Your task to perform on an android device: check google app version Image 0: 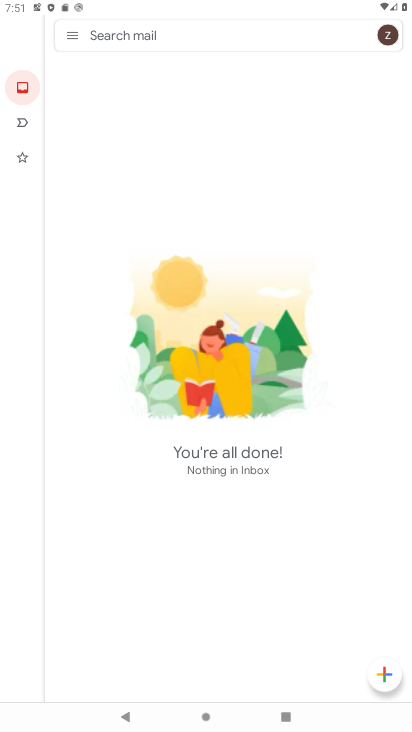
Step 0: press back button
Your task to perform on an android device: check google app version Image 1: 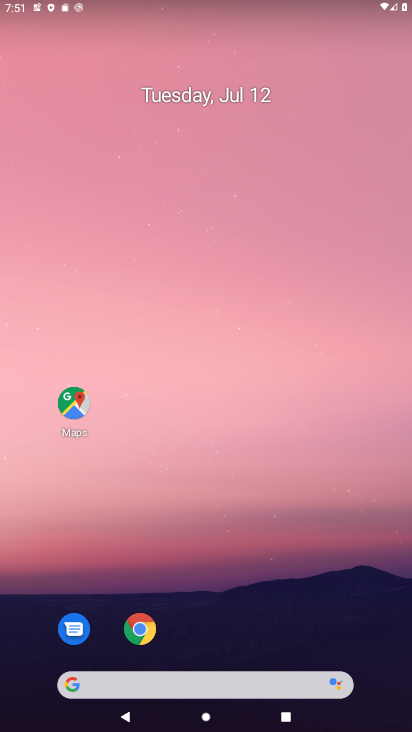
Step 1: drag from (250, 622) to (146, 75)
Your task to perform on an android device: check google app version Image 2: 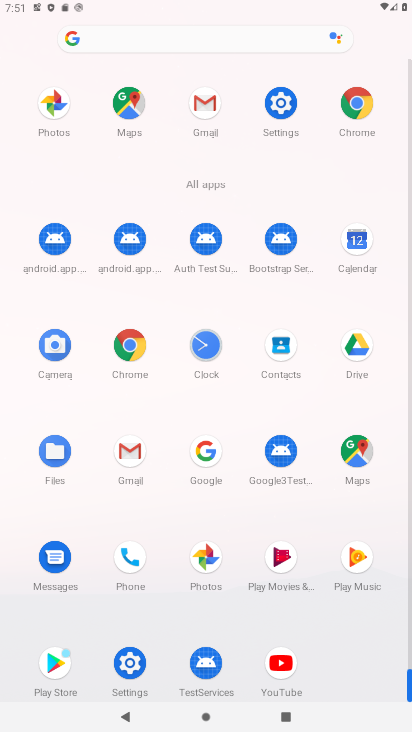
Step 2: click (204, 451)
Your task to perform on an android device: check google app version Image 3: 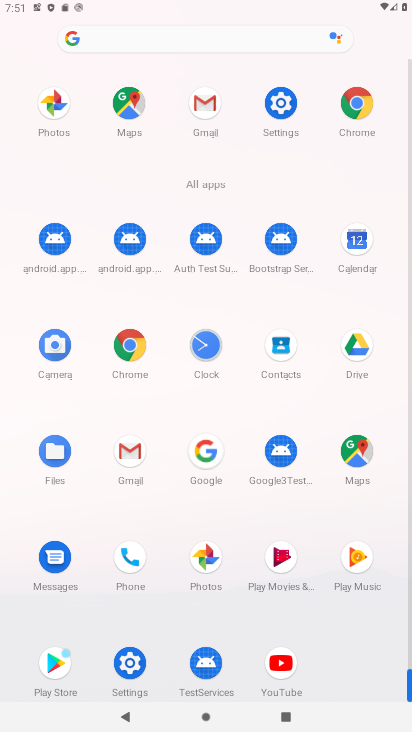
Step 3: click (206, 453)
Your task to perform on an android device: check google app version Image 4: 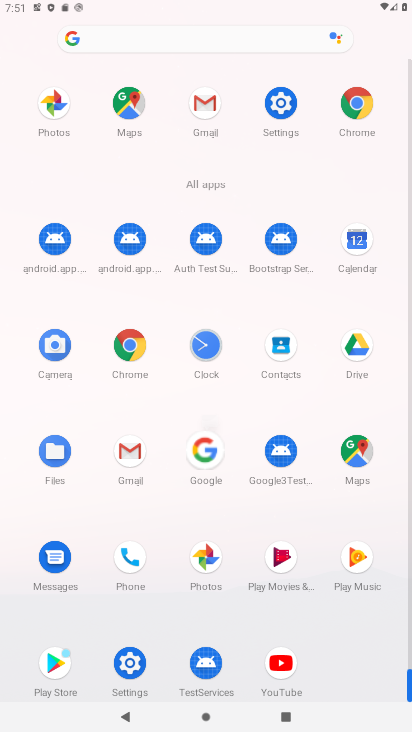
Step 4: click (208, 455)
Your task to perform on an android device: check google app version Image 5: 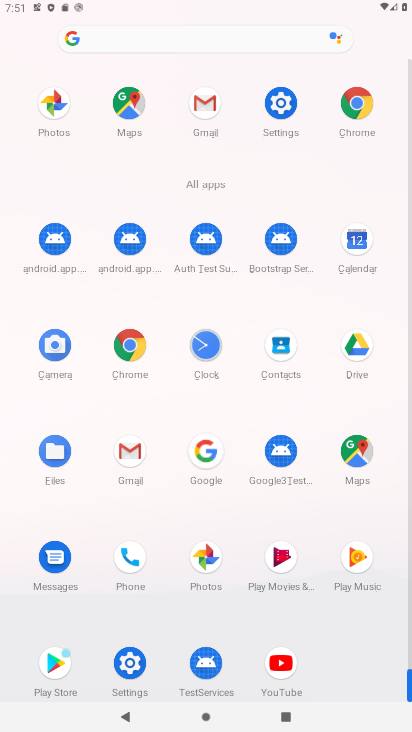
Step 5: click (208, 455)
Your task to perform on an android device: check google app version Image 6: 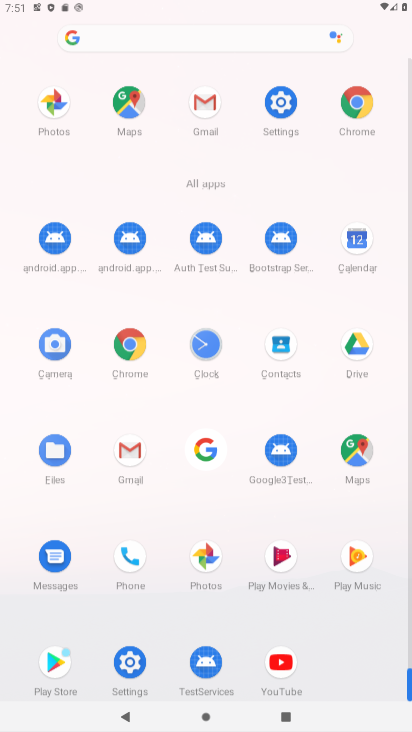
Step 6: click (208, 456)
Your task to perform on an android device: check google app version Image 7: 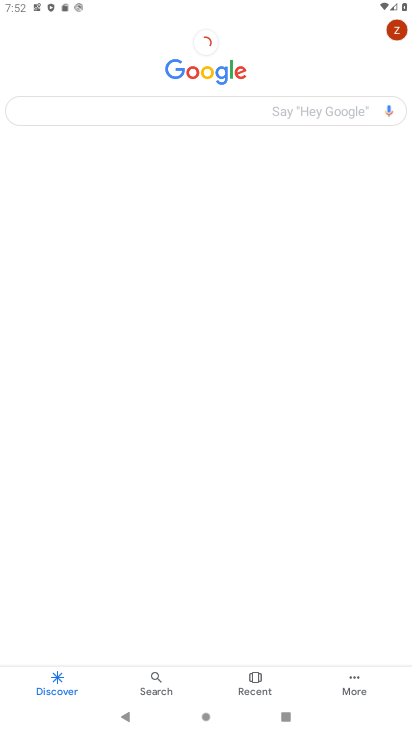
Step 7: click (351, 683)
Your task to perform on an android device: check google app version Image 8: 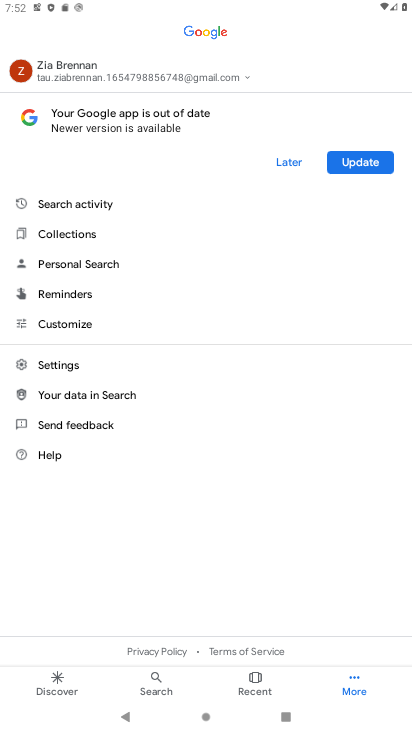
Step 8: click (350, 681)
Your task to perform on an android device: check google app version Image 9: 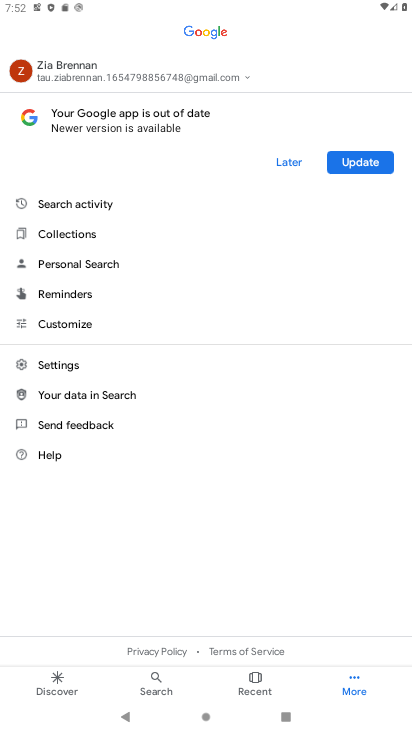
Step 9: click (349, 681)
Your task to perform on an android device: check google app version Image 10: 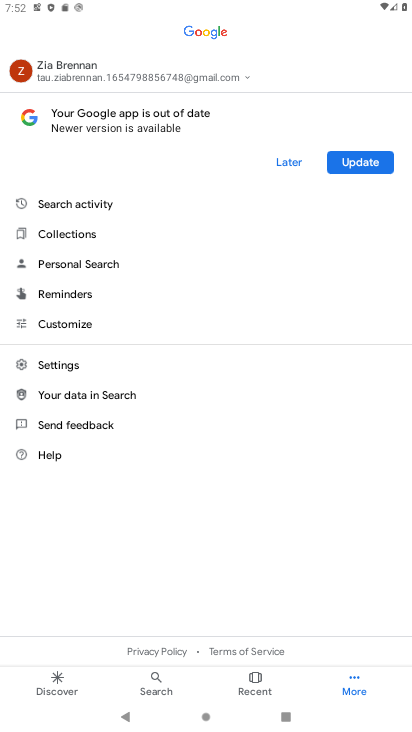
Step 10: click (349, 681)
Your task to perform on an android device: check google app version Image 11: 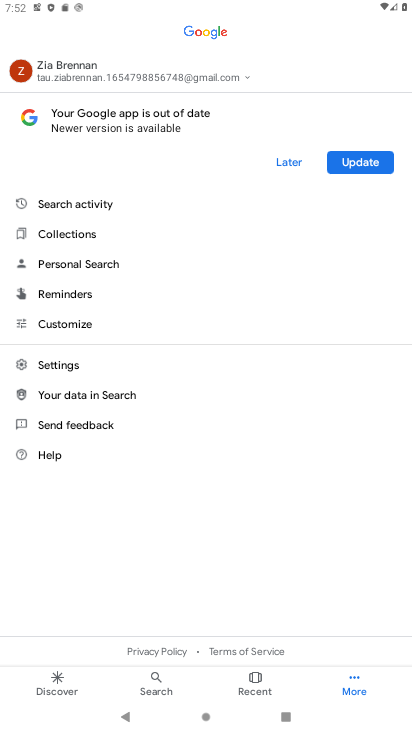
Step 11: click (349, 681)
Your task to perform on an android device: check google app version Image 12: 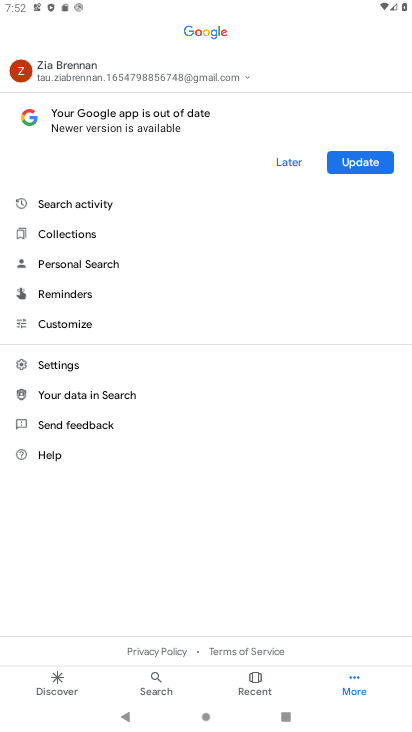
Step 12: click (349, 681)
Your task to perform on an android device: check google app version Image 13: 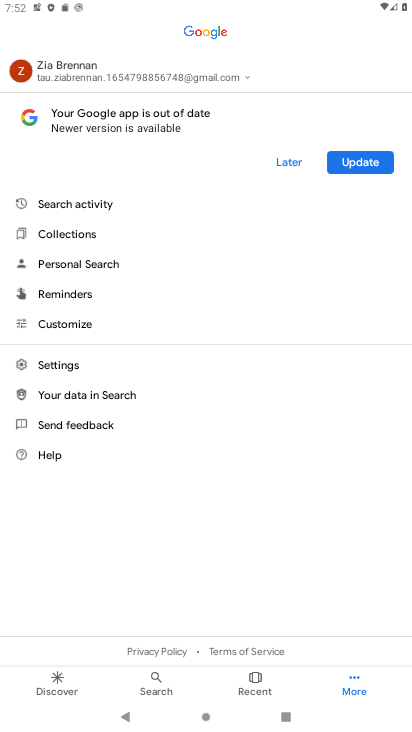
Step 13: click (349, 680)
Your task to perform on an android device: check google app version Image 14: 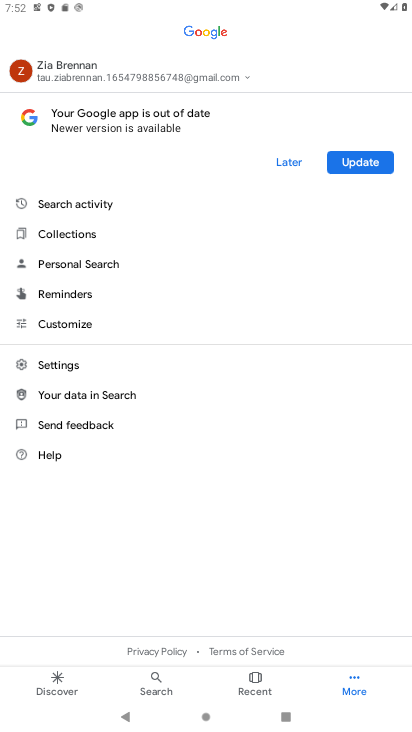
Step 14: click (348, 679)
Your task to perform on an android device: check google app version Image 15: 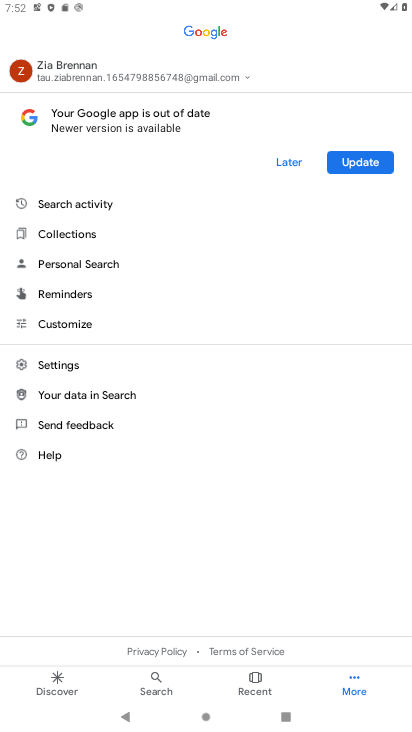
Step 15: click (348, 679)
Your task to perform on an android device: check google app version Image 16: 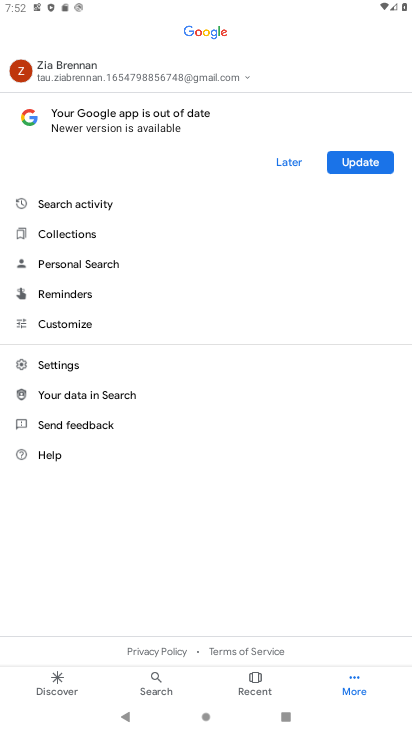
Step 16: click (348, 673)
Your task to perform on an android device: check google app version Image 17: 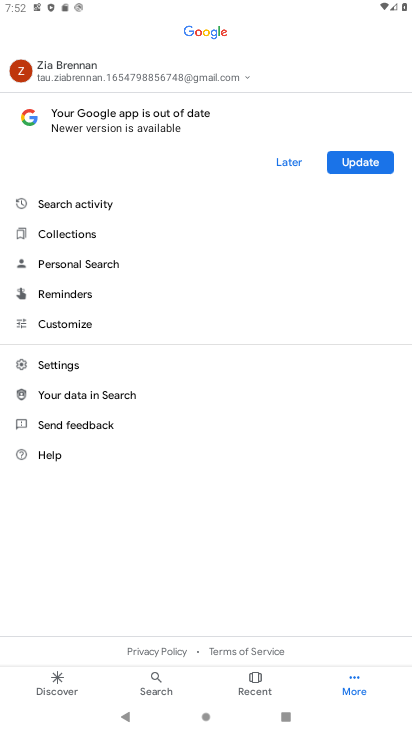
Step 17: click (348, 673)
Your task to perform on an android device: check google app version Image 18: 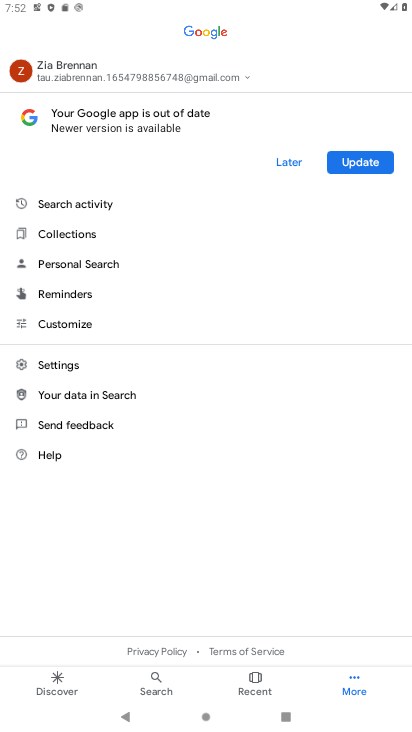
Step 18: click (348, 673)
Your task to perform on an android device: check google app version Image 19: 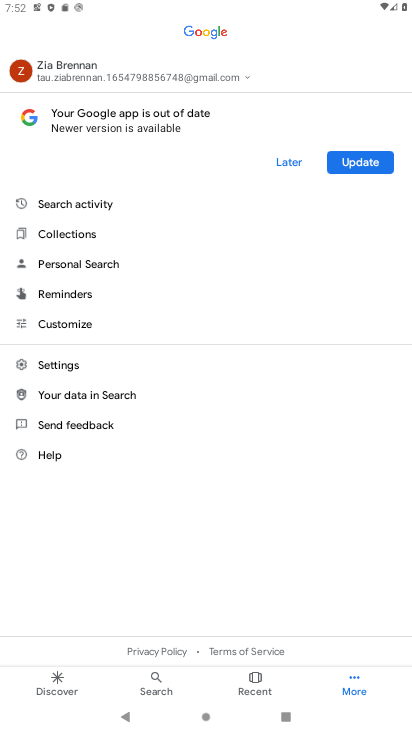
Step 19: click (348, 673)
Your task to perform on an android device: check google app version Image 20: 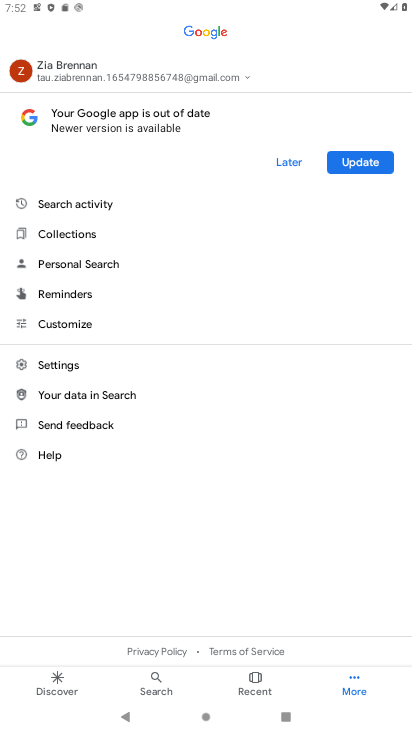
Step 20: click (348, 672)
Your task to perform on an android device: check google app version Image 21: 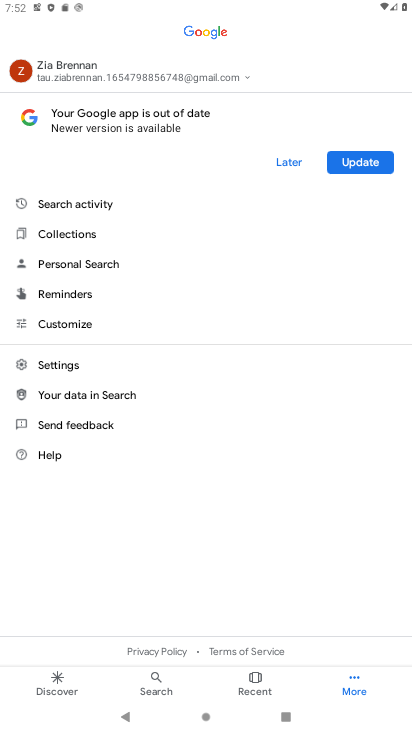
Step 21: task complete